Your task to perform on an android device: change the upload size in google photos Image 0: 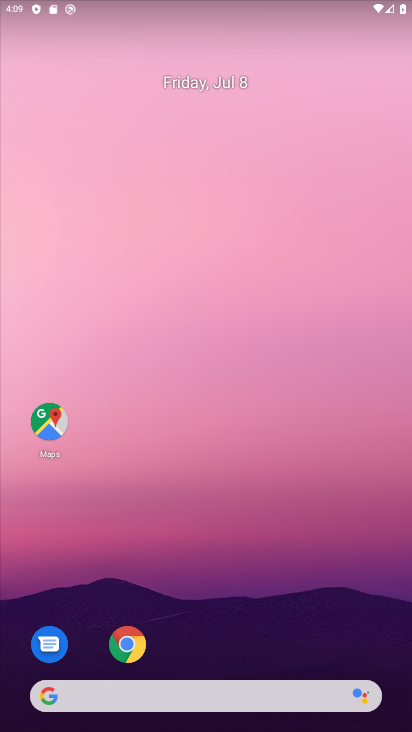
Step 0: drag from (195, 641) to (144, 257)
Your task to perform on an android device: change the upload size in google photos Image 1: 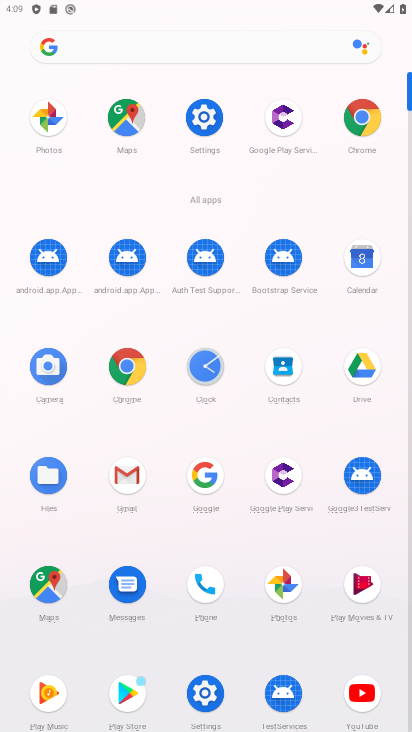
Step 1: click (281, 570)
Your task to perform on an android device: change the upload size in google photos Image 2: 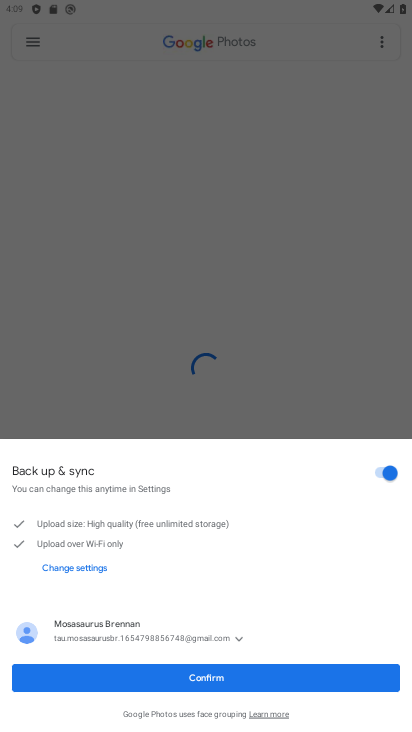
Step 2: click (265, 675)
Your task to perform on an android device: change the upload size in google photos Image 3: 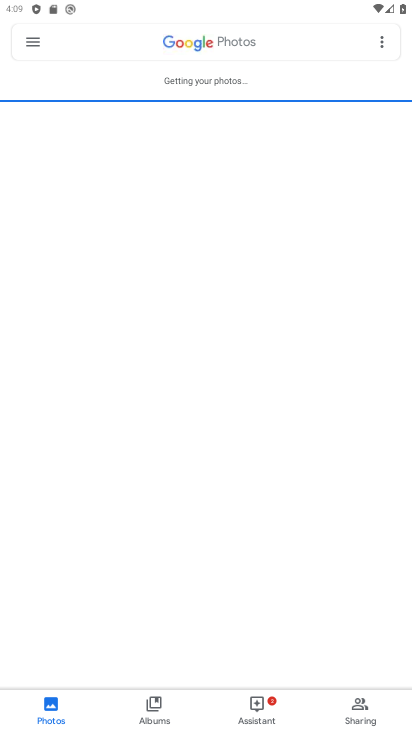
Step 3: click (40, 44)
Your task to perform on an android device: change the upload size in google photos Image 4: 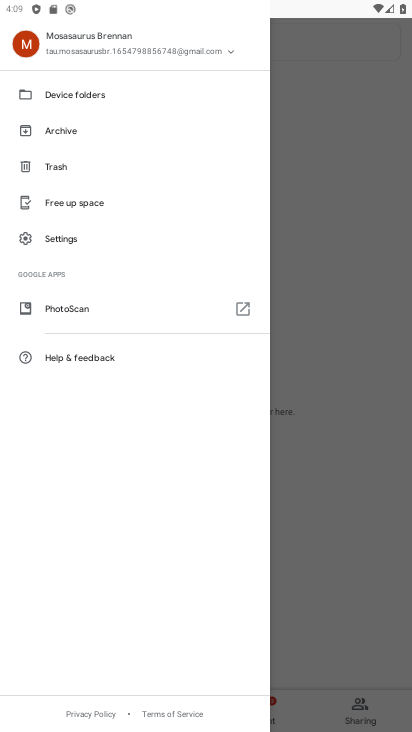
Step 4: click (53, 249)
Your task to perform on an android device: change the upload size in google photos Image 5: 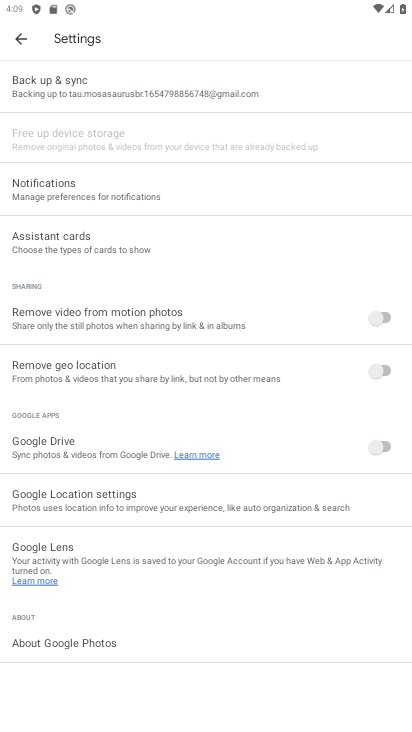
Step 5: click (146, 90)
Your task to perform on an android device: change the upload size in google photos Image 6: 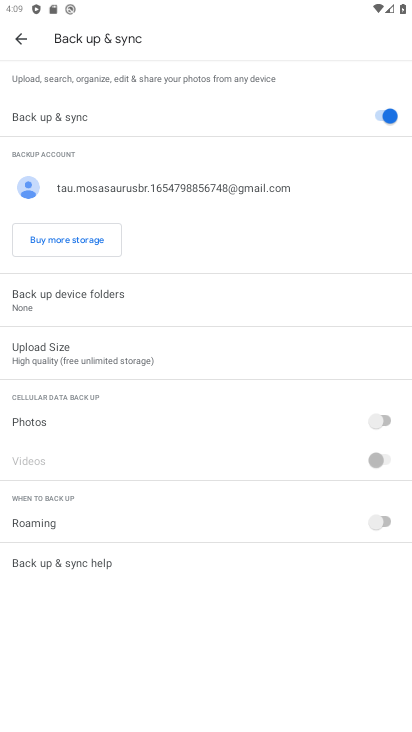
Step 6: click (145, 348)
Your task to perform on an android device: change the upload size in google photos Image 7: 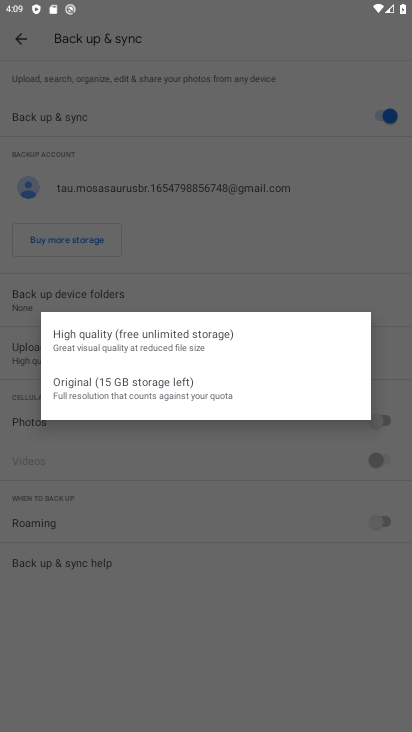
Step 7: click (150, 380)
Your task to perform on an android device: change the upload size in google photos Image 8: 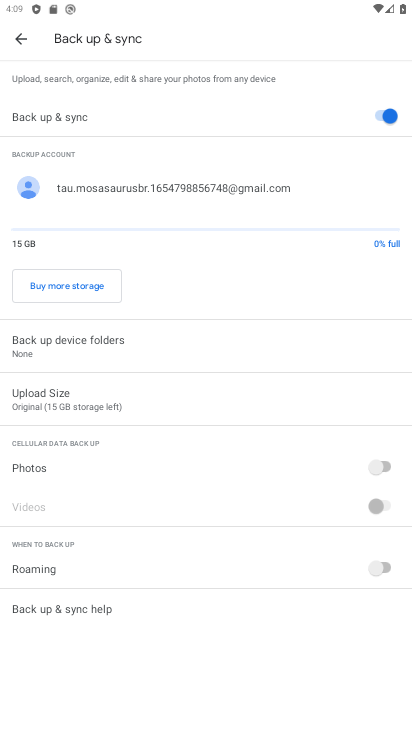
Step 8: task complete